Your task to perform on an android device: What's a good restaurant in Houston? Image 0: 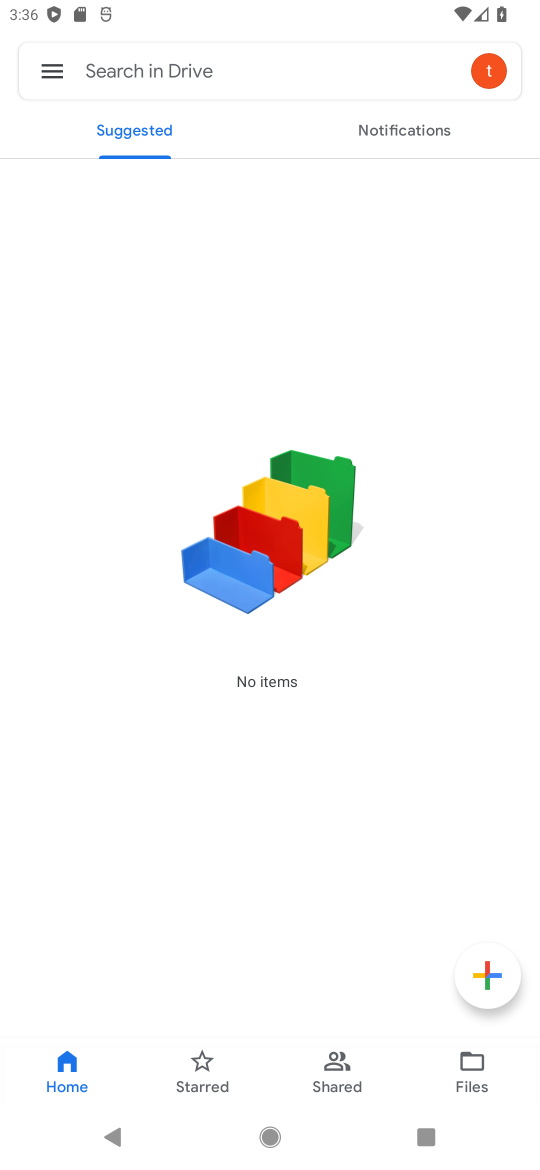
Step 0: press home button
Your task to perform on an android device: What's a good restaurant in Houston? Image 1: 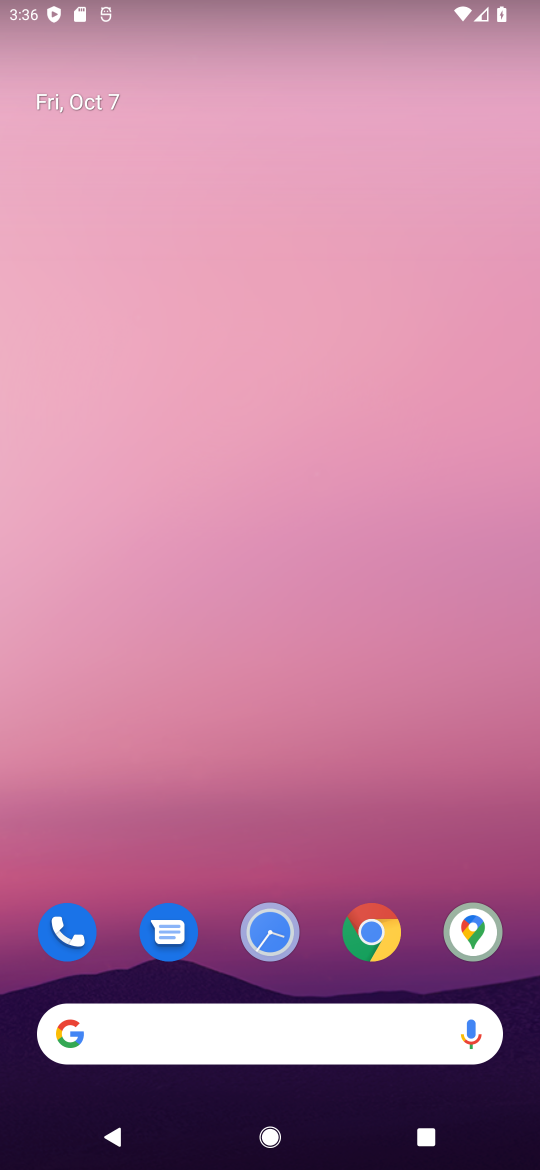
Step 1: click (378, 923)
Your task to perform on an android device: What's a good restaurant in Houston? Image 2: 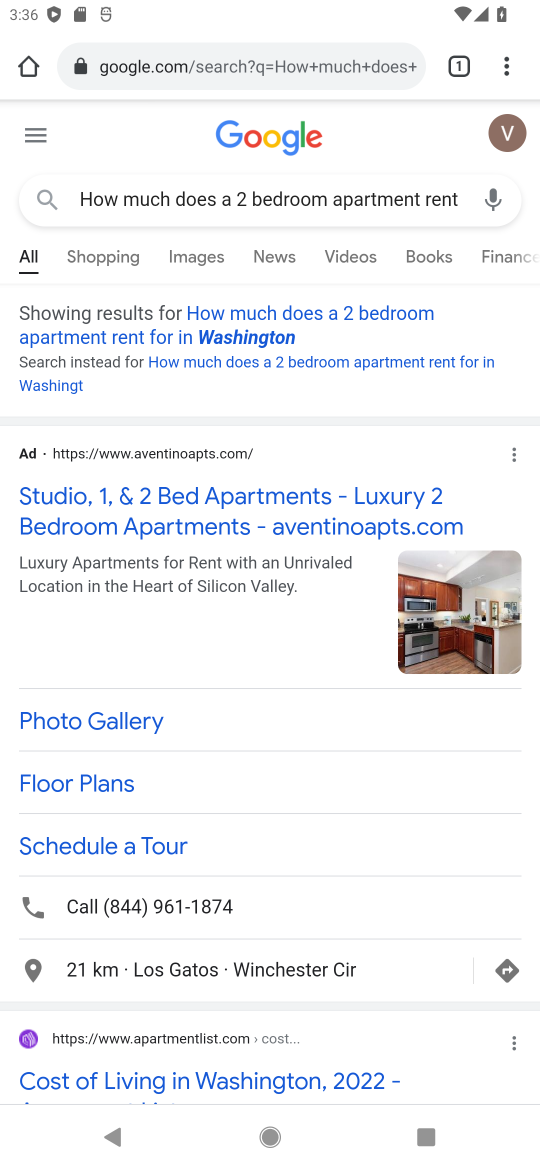
Step 2: click (245, 69)
Your task to perform on an android device: What's a good restaurant in Houston? Image 3: 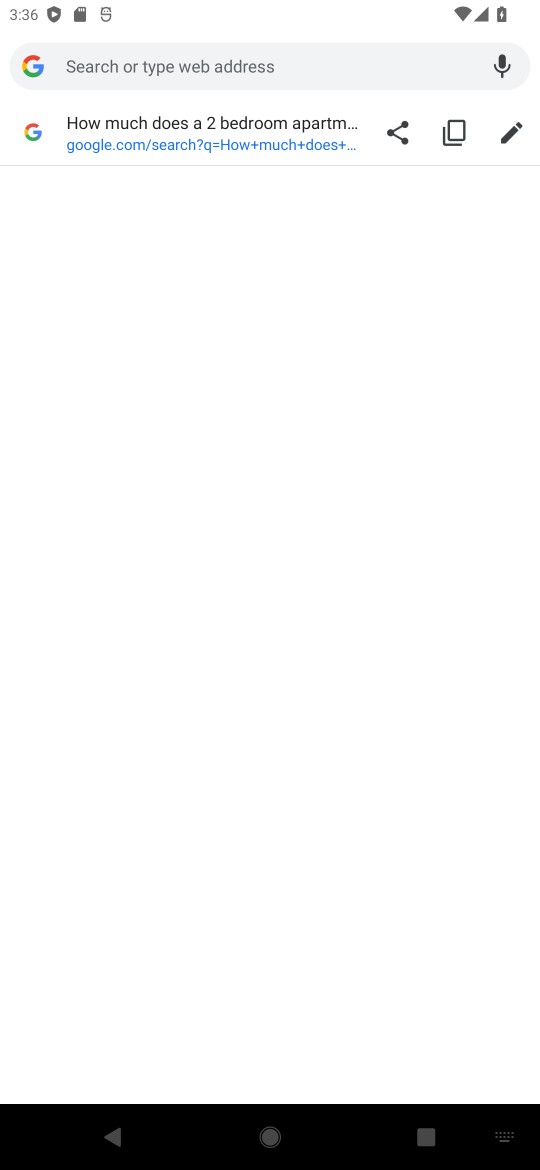
Step 3: type "What's a good restaurant in Houston?"
Your task to perform on an android device: What's a good restaurant in Houston? Image 4: 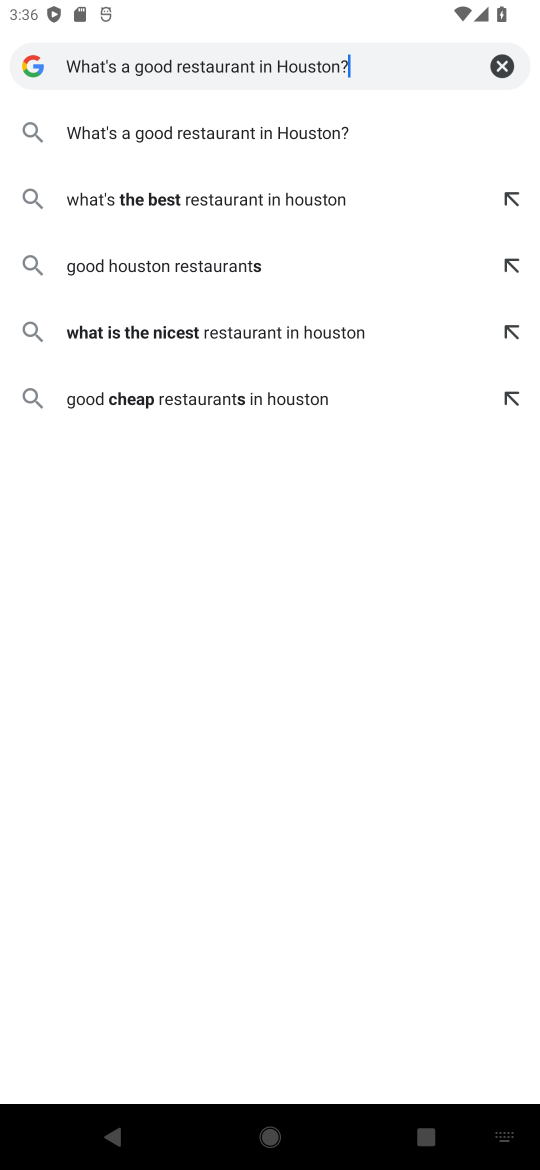
Step 4: click (197, 130)
Your task to perform on an android device: What's a good restaurant in Houston? Image 5: 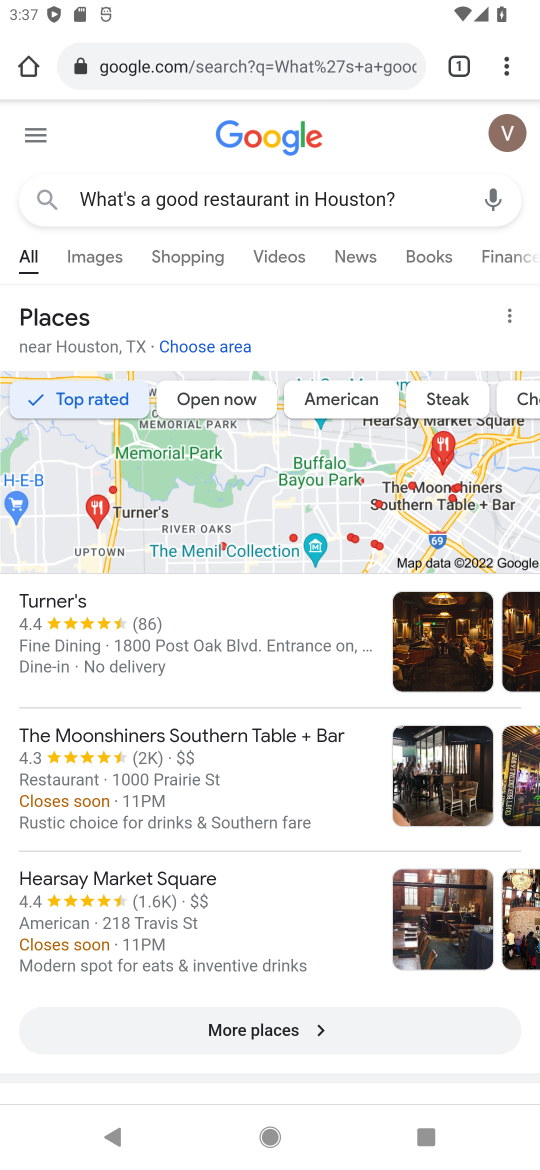
Step 5: task complete